Your task to perform on an android device: Toggle the flashlight Image 0: 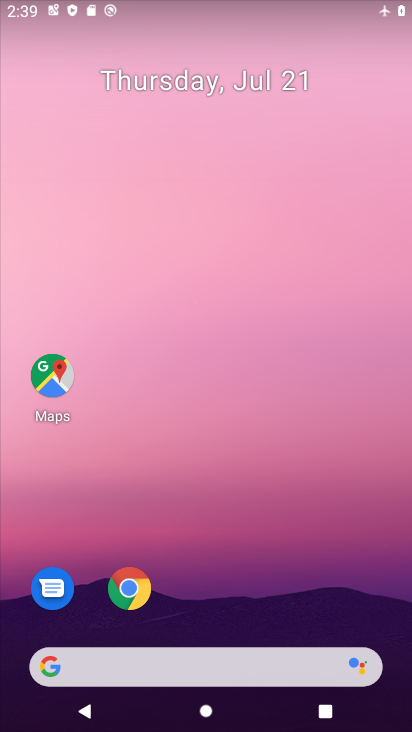
Step 0: drag from (200, 626) to (238, 249)
Your task to perform on an android device: Toggle the flashlight Image 1: 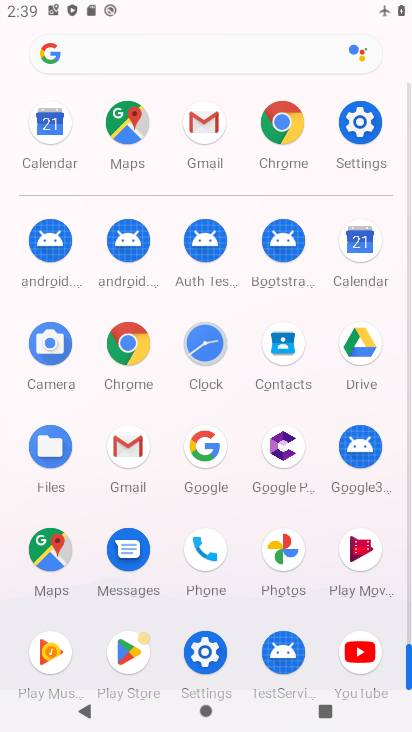
Step 1: drag from (224, 629) to (235, 403)
Your task to perform on an android device: Toggle the flashlight Image 2: 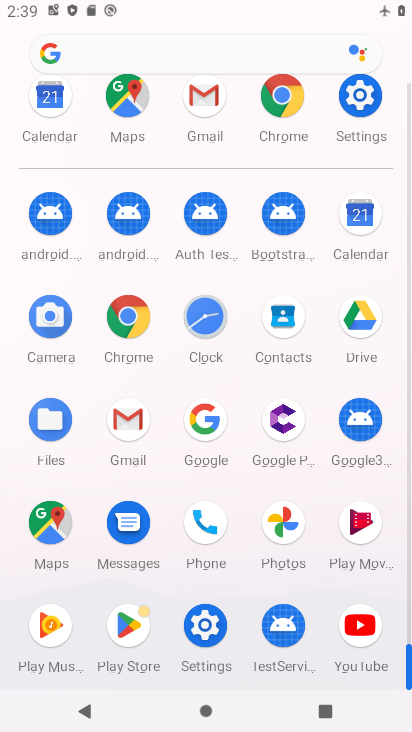
Step 2: drag from (242, 577) to (216, 290)
Your task to perform on an android device: Toggle the flashlight Image 3: 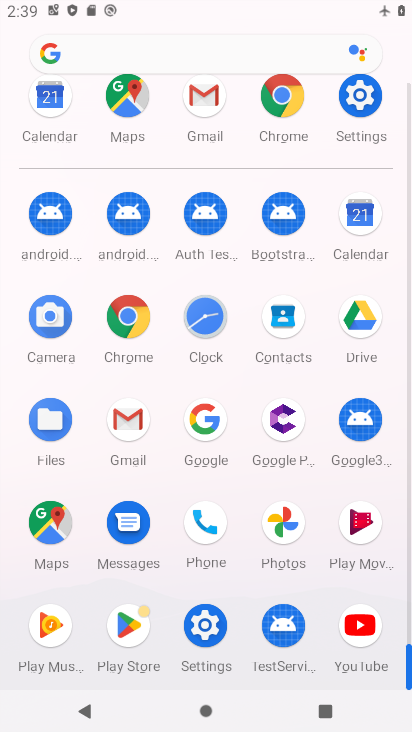
Step 3: click (206, 630)
Your task to perform on an android device: Toggle the flashlight Image 4: 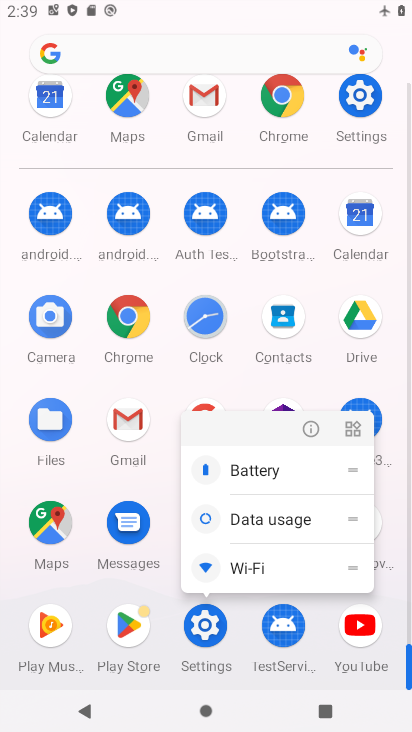
Step 4: click (323, 428)
Your task to perform on an android device: Toggle the flashlight Image 5: 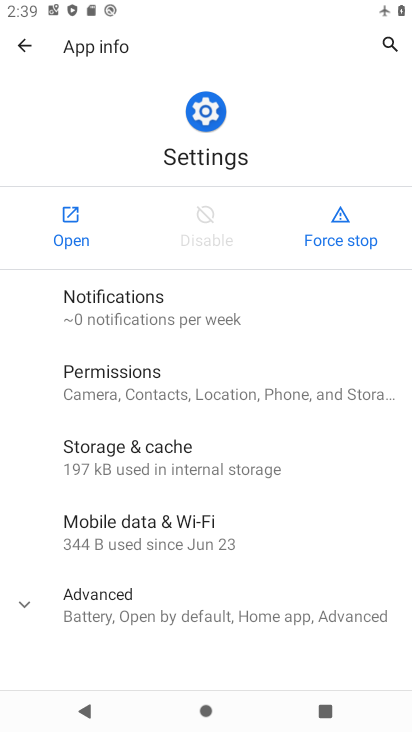
Step 5: click (67, 232)
Your task to perform on an android device: Toggle the flashlight Image 6: 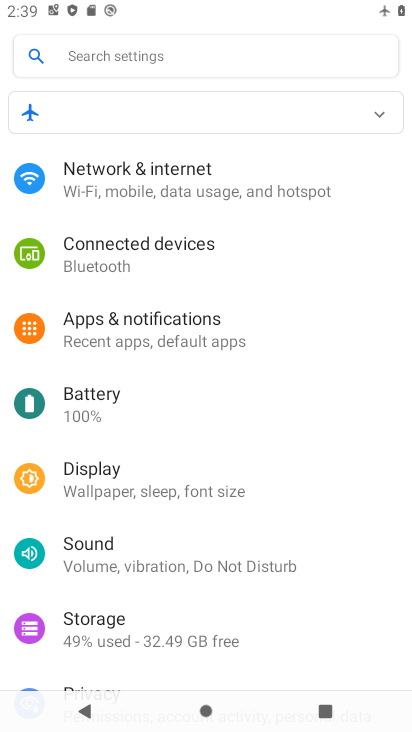
Step 6: click (163, 62)
Your task to perform on an android device: Toggle the flashlight Image 7: 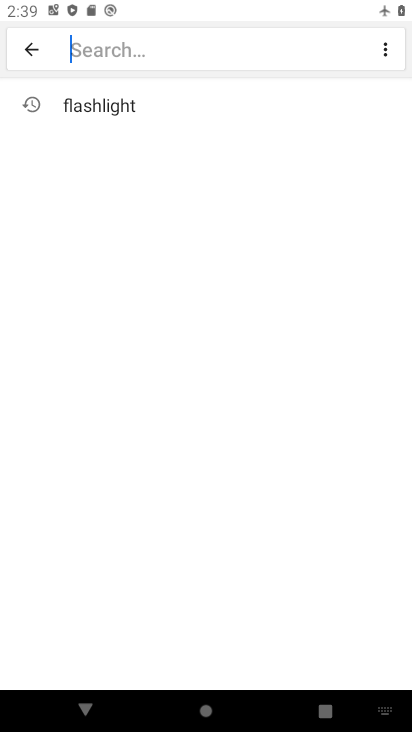
Step 7: click (185, 109)
Your task to perform on an android device: Toggle the flashlight Image 8: 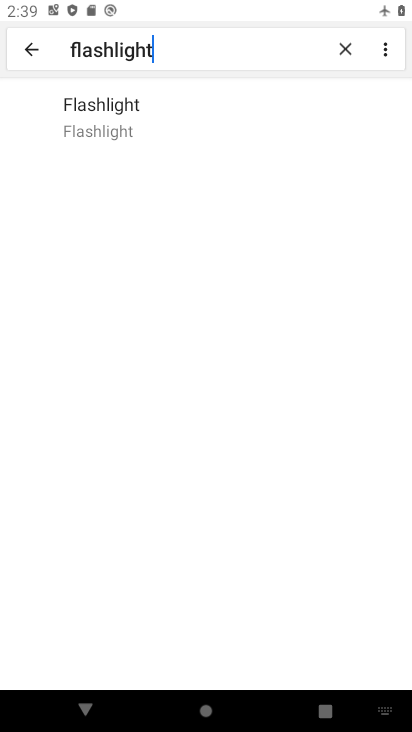
Step 8: click (159, 122)
Your task to perform on an android device: Toggle the flashlight Image 9: 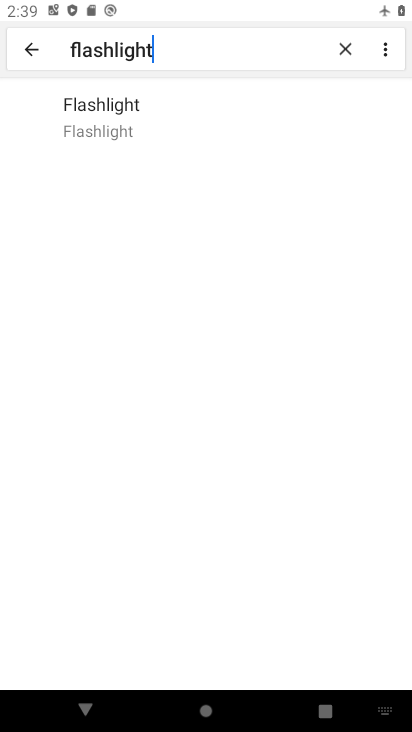
Step 9: task complete